Your task to perform on an android device: What's the weather going to be this weekend? Image 0: 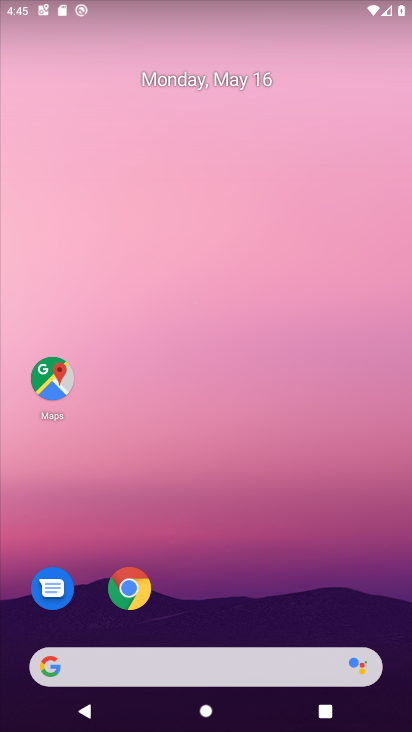
Step 0: drag from (268, 570) to (160, 27)
Your task to perform on an android device: What's the weather going to be this weekend? Image 1: 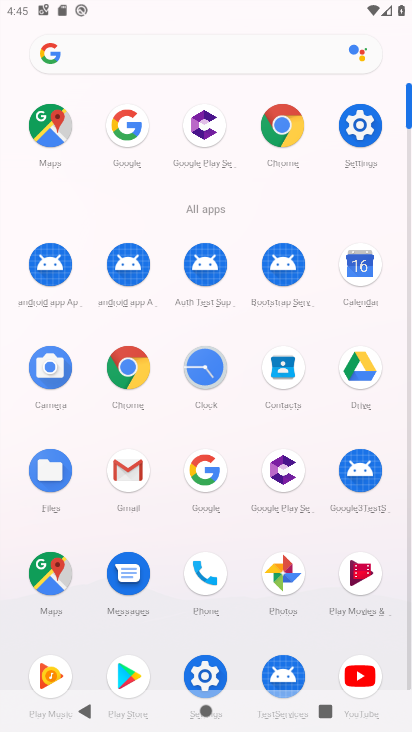
Step 1: click (211, 480)
Your task to perform on an android device: What's the weather going to be this weekend? Image 2: 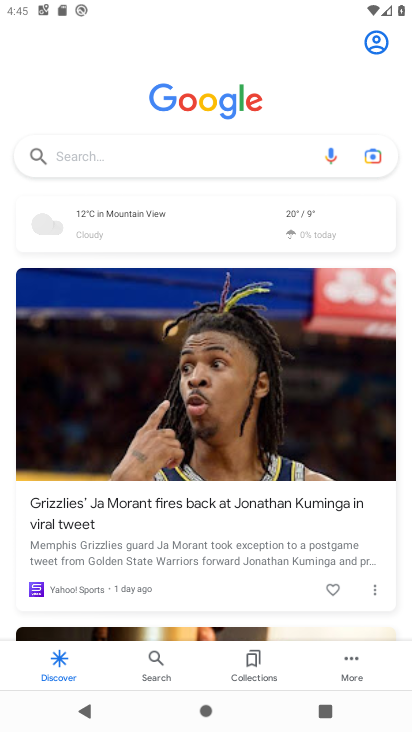
Step 2: click (300, 222)
Your task to perform on an android device: What's the weather going to be this weekend? Image 3: 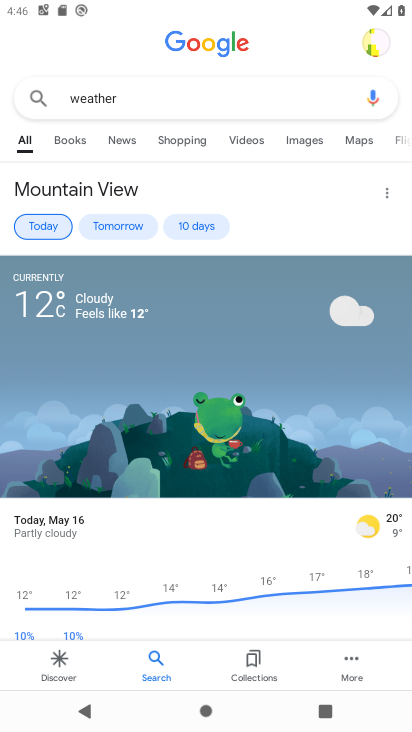
Step 3: click (195, 222)
Your task to perform on an android device: What's the weather going to be this weekend? Image 4: 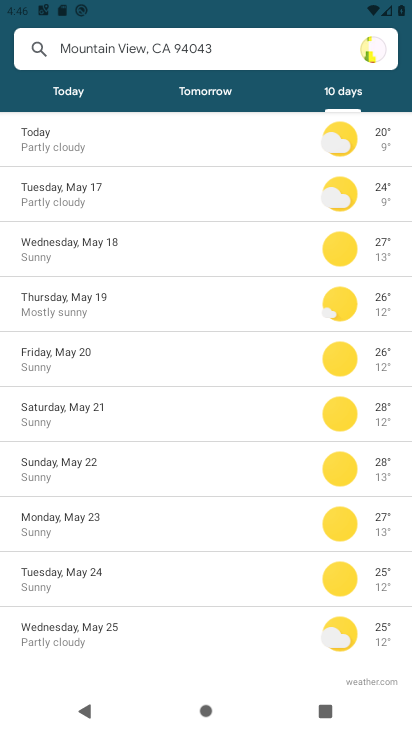
Step 4: task complete